Your task to perform on an android device: change timer sound Image 0: 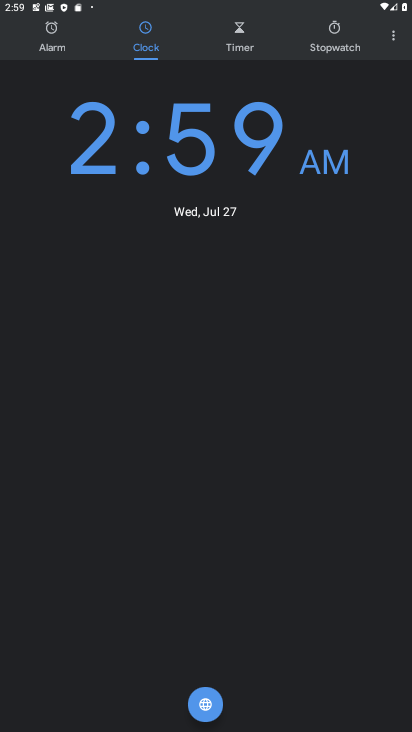
Step 0: press home button
Your task to perform on an android device: change timer sound Image 1: 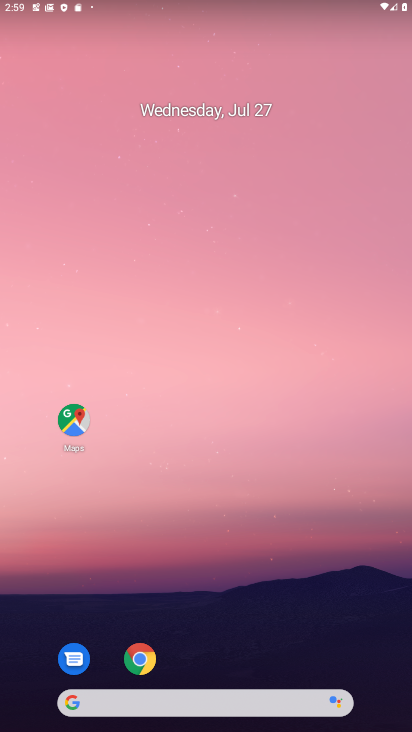
Step 1: drag from (218, 693) to (184, 230)
Your task to perform on an android device: change timer sound Image 2: 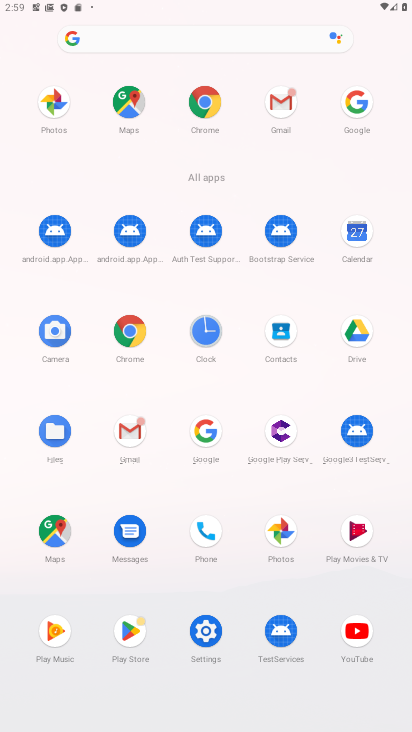
Step 2: click (202, 340)
Your task to perform on an android device: change timer sound Image 3: 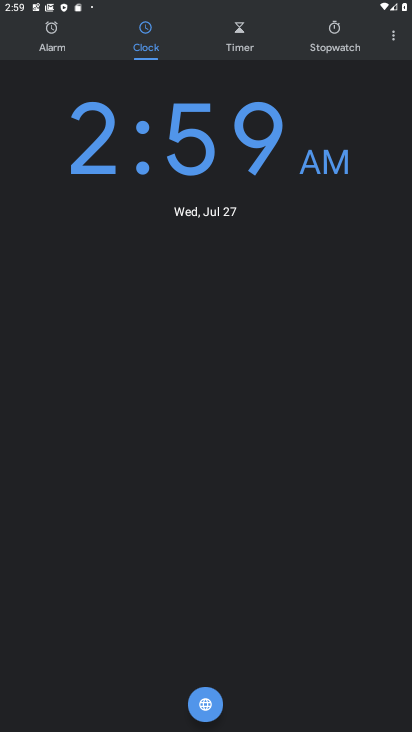
Step 3: click (385, 38)
Your task to perform on an android device: change timer sound Image 4: 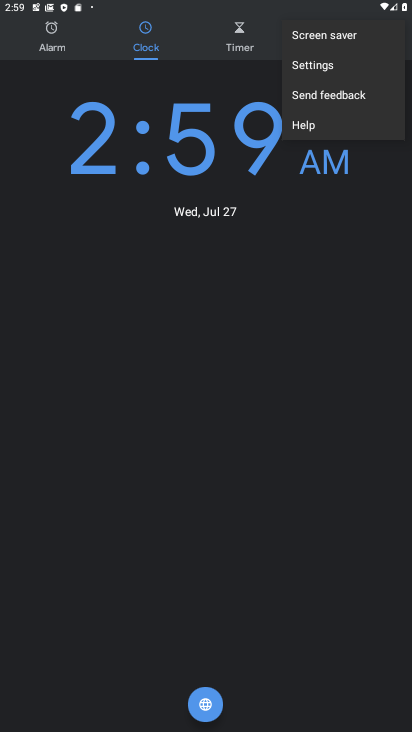
Step 4: click (332, 60)
Your task to perform on an android device: change timer sound Image 5: 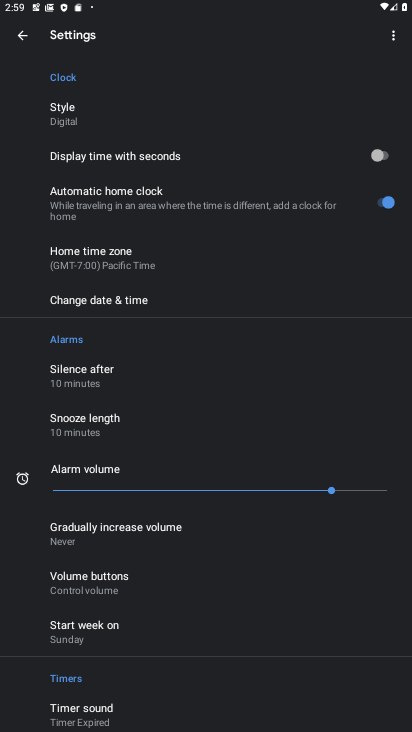
Step 5: click (71, 721)
Your task to perform on an android device: change timer sound Image 6: 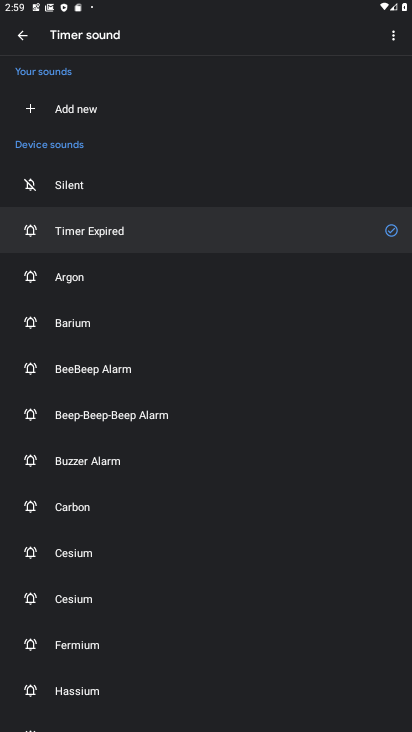
Step 6: click (69, 323)
Your task to perform on an android device: change timer sound Image 7: 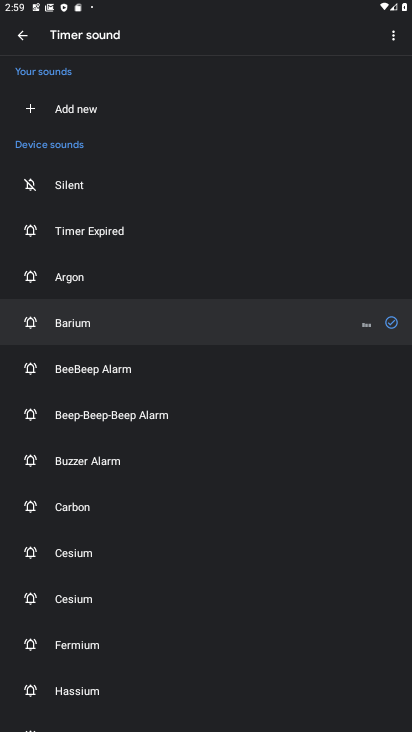
Step 7: task complete